Your task to perform on an android device: Do I have any events tomorrow? Image 0: 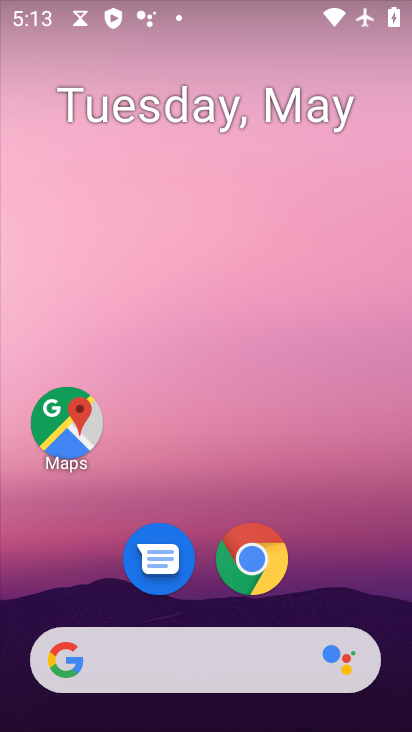
Step 0: drag from (337, 448) to (171, 138)
Your task to perform on an android device: Do I have any events tomorrow? Image 1: 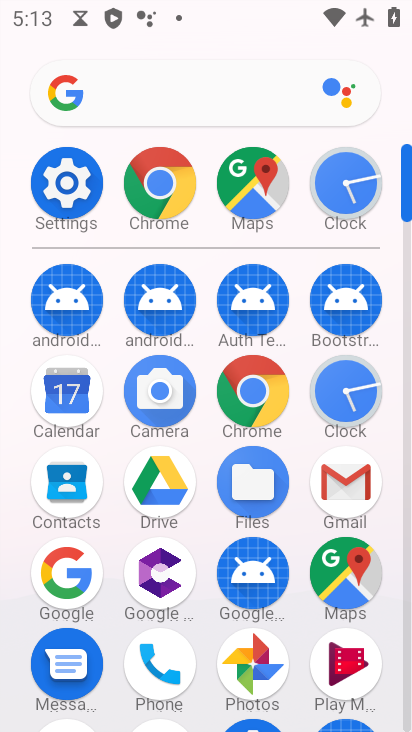
Step 1: click (81, 387)
Your task to perform on an android device: Do I have any events tomorrow? Image 2: 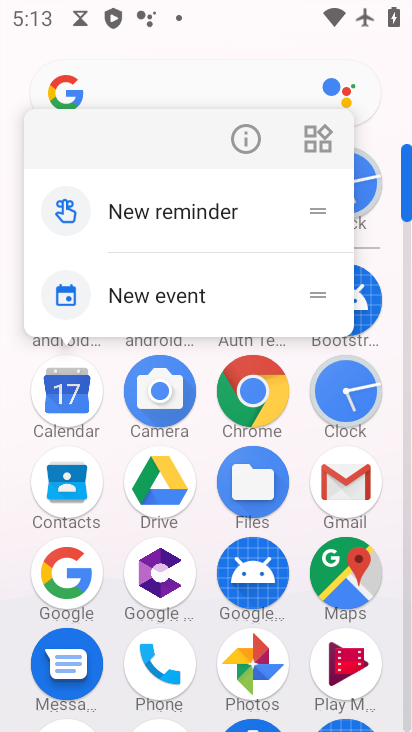
Step 2: click (31, 397)
Your task to perform on an android device: Do I have any events tomorrow? Image 3: 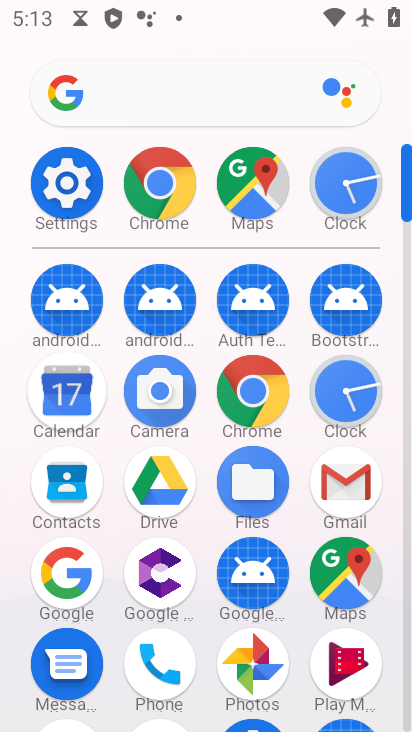
Step 3: click (69, 402)
Your task to perform on an android device: Do I have any events tomorrow? Image 4: 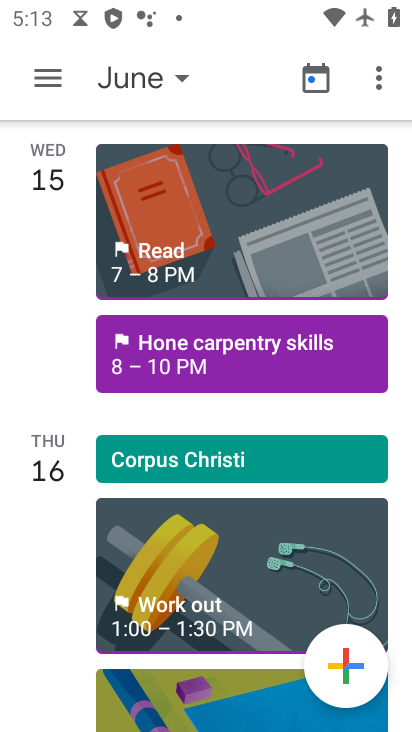
Step 4: click (177, 73)
Your task to perform on an android device: Do I have any events tomorrow? Image 5: 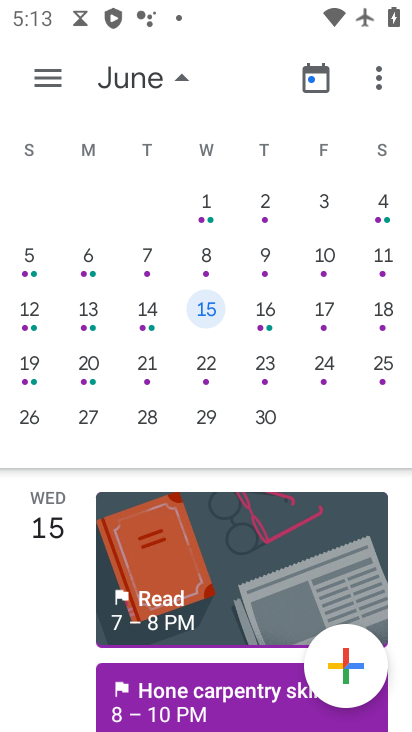
Step 5: drag from (114, 352) to (393, 365)
Your task to perform on an android device: Do I have any events tomorrow? Image 6: 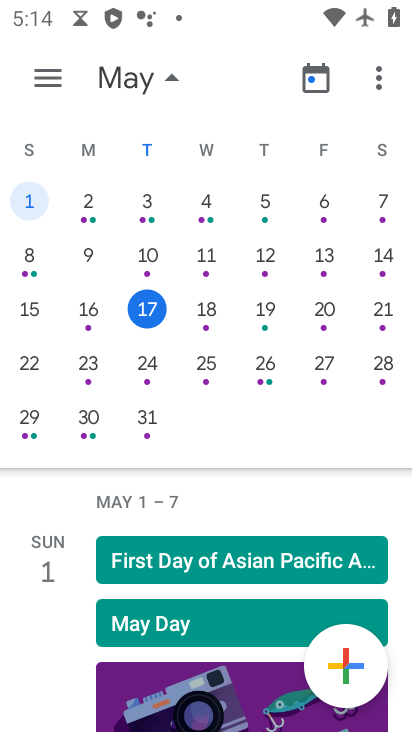
Step 6: click (209, 309)
Your task to perform on an android device: Do I have any events tomorrow? Image 7: 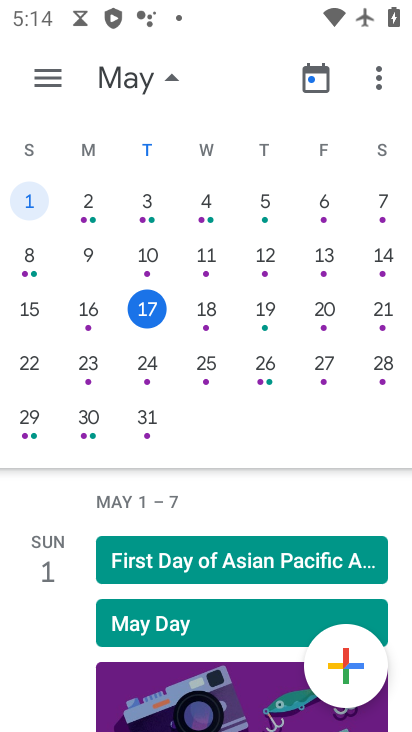
Step 7: click (210, 308)
Your task to perform on an android device: Do I have any events tomorrow? Image 8: 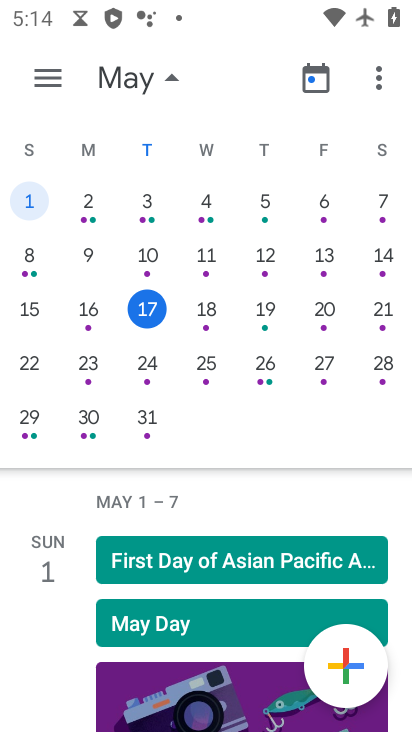
Step 8: click (211, 309)
Your task to perform on an android device: Do I have any events tomorrow? Image 9: 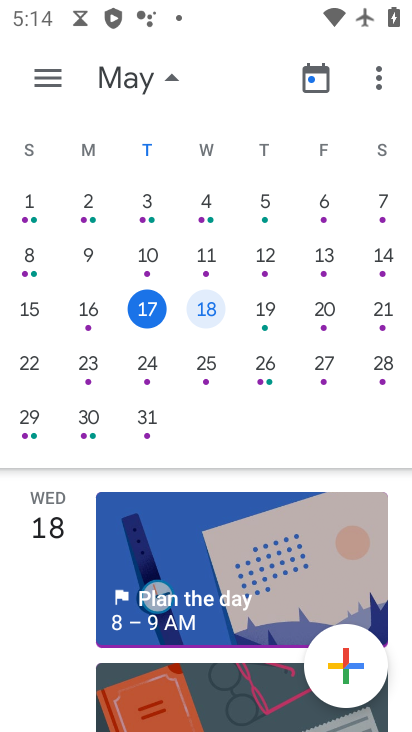
Step 9: click (212, 592)
Your task to perform on an android device: Do I have any events tomorrow? Image 10: 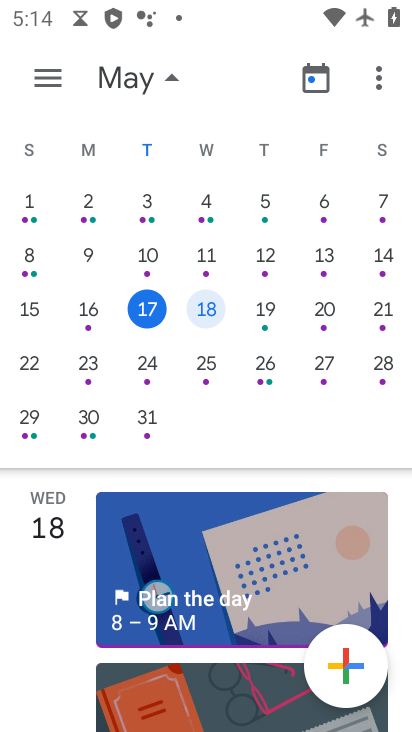
Step 10: click (219, 589)
Your task to perform on an android device: Do I have any events tomorrow? Image 11: 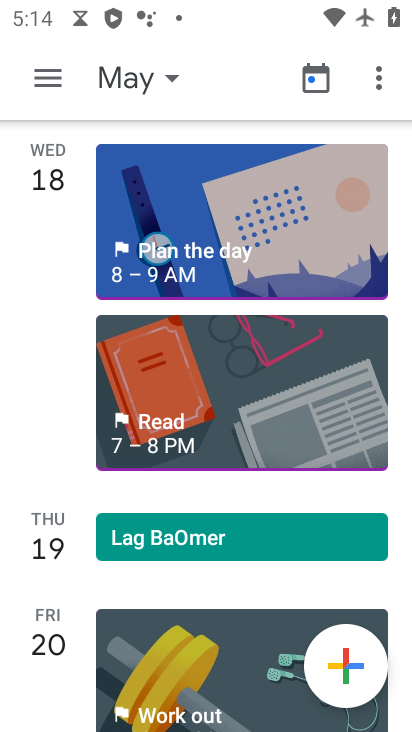
Step 11: task complete